Your task to perform on an android device: change text size in settings app Image 0: 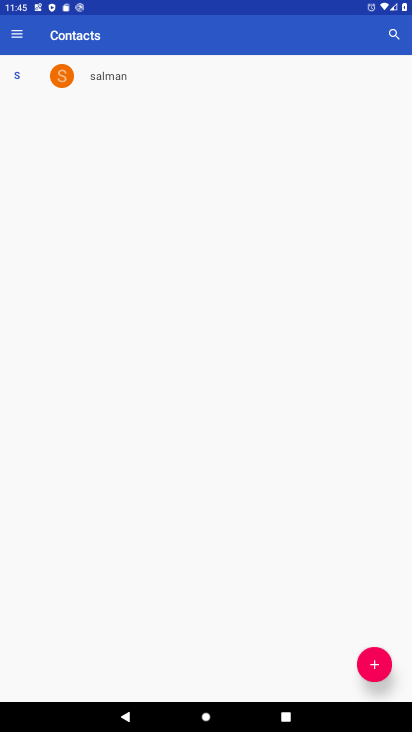
Step 0: press home button
Your task to perform on an android device: change text size in settings app Image 1: 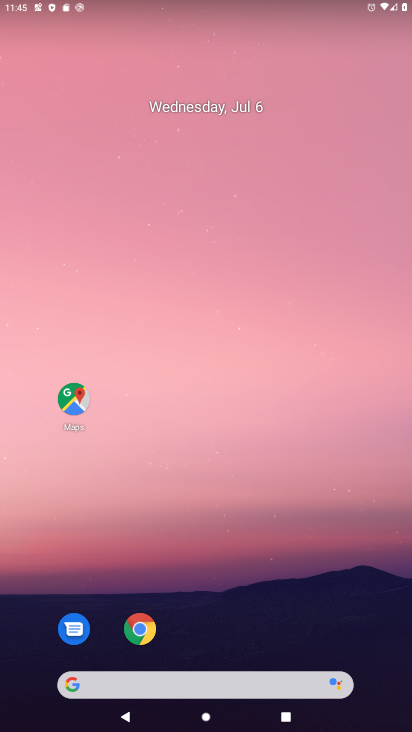
Step 1: drag from (237, 598) to (221, 158)
Your task to perform on an android device: change text size in settings app Image 2: 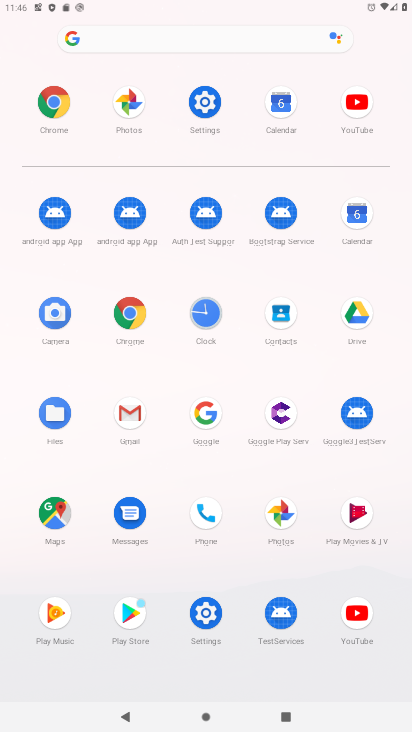
Step 2: click (208, 612)
Your task to perform on an android device: change text size in settings app Image 3: 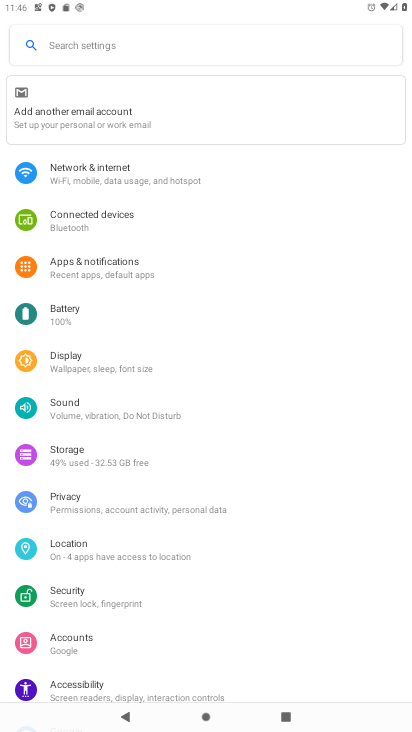
Step 3: drag from (129, 576) to (199, 436)
Your task to perform on an android device: change text size in settings app Image 4: 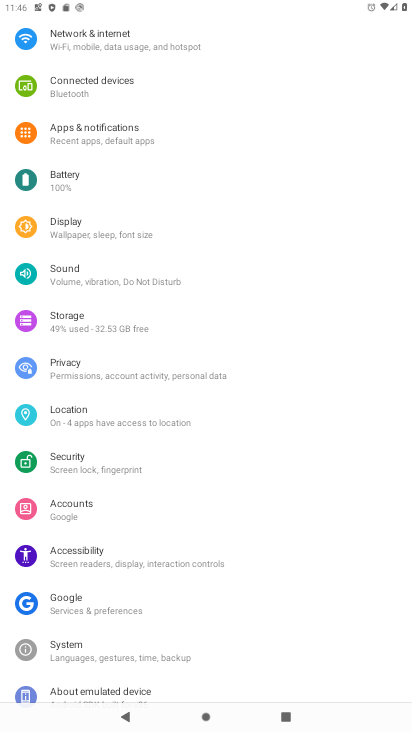
Step 4: drag from (124, 585) to (197, 506)
Your task to perform on an android device: change text size in settings app Image 5: 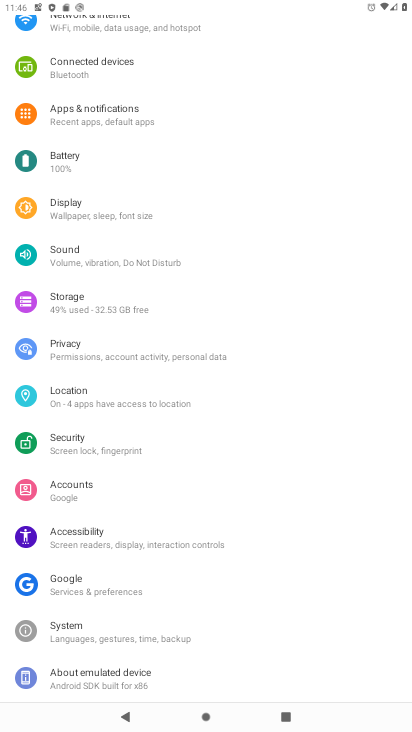
Step 5: click (99, 536)
Your task to perform on an android device: change text size in settings app Image 6: 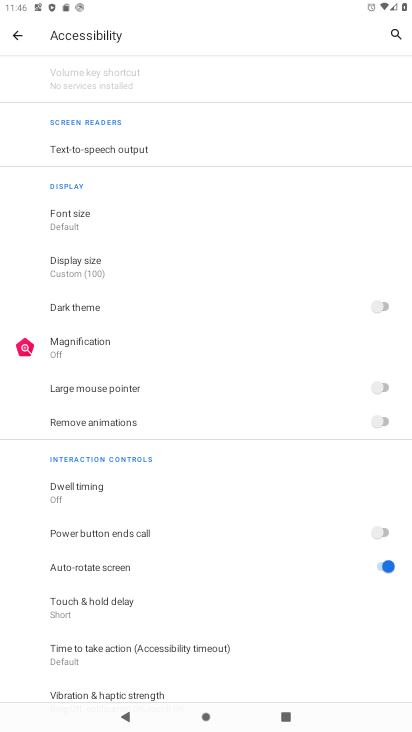
Step 6: click (78, 215)
Your task to perform on an android device: change text size in settings app Image 7: 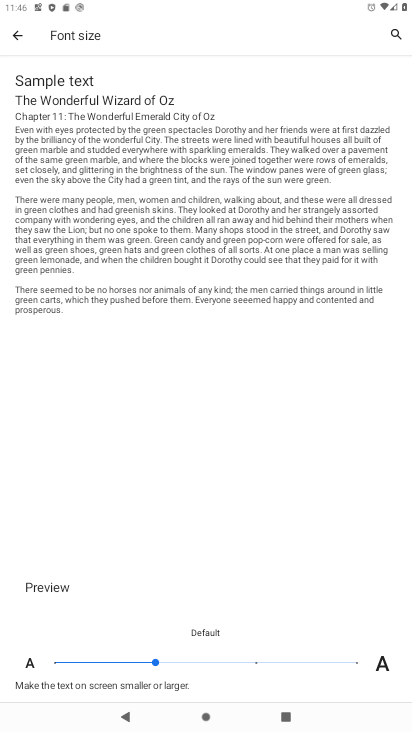
Step 7: click (252, 662)
Your task to perform on an android device: change text size in settings app Image 8: 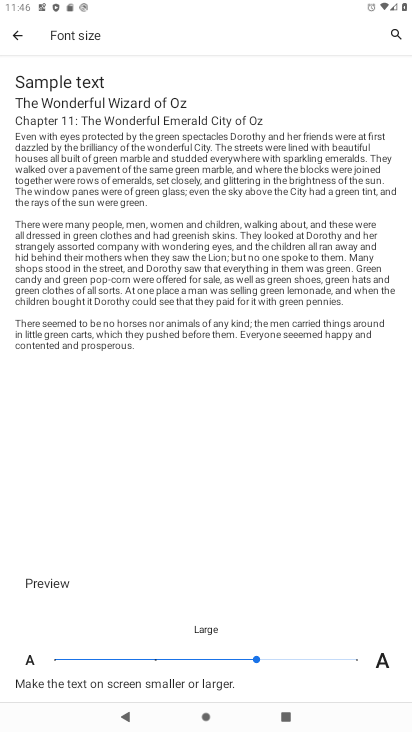
Step 8: task complete